Your task to perform on an android device: Show the shopping cart on bestbuy.com. Add sony triple a to the cart on bestbuy.com, then select checkout. Image 0: 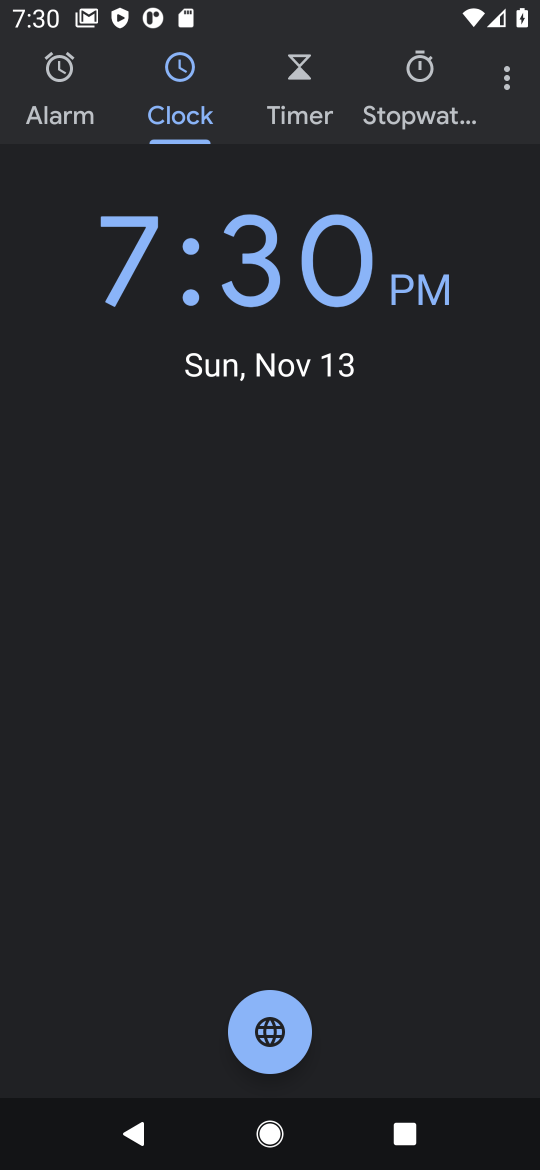
Step 0: press home button
Your task to perform on an android device: Show the shopping cart on bestbuy.com. Add sony triple a to the cart on bestbuy.com, then select checkout. Image 1: 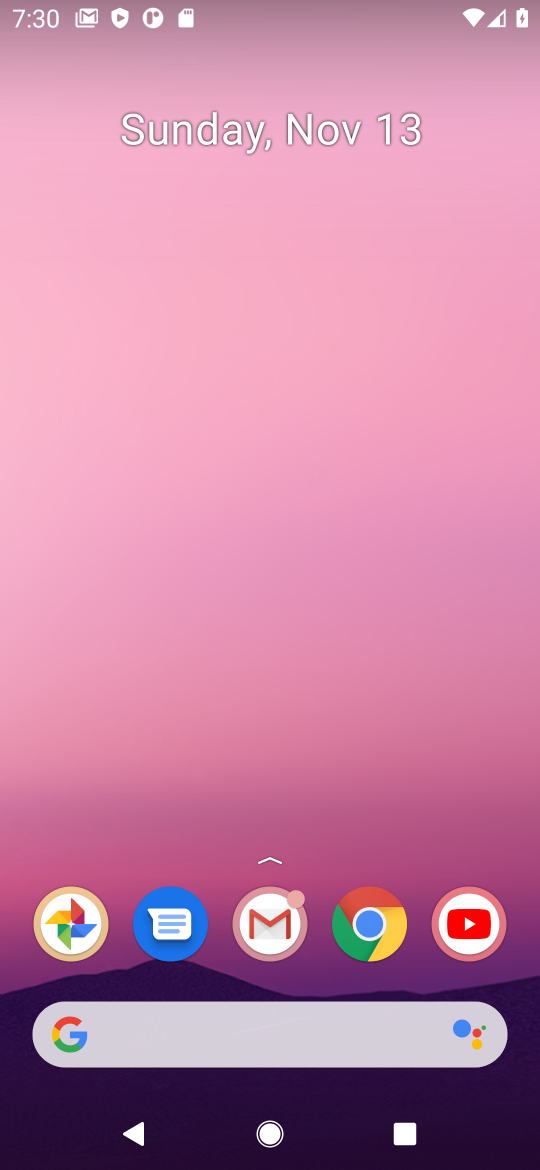
Step 1: click (364, 925)
Your task to perform on an android device: Show the shopping cart on bestbuy.com. Add sony triple a to the cart on bestbuy.com, then select checkout. Image 2: 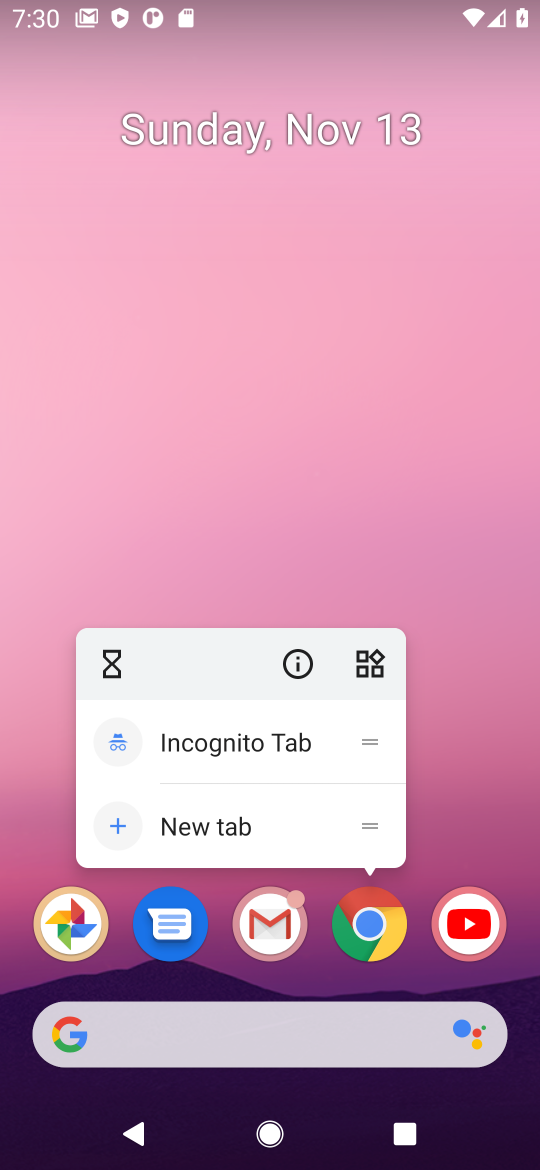
Step 2: click (379, 914)
Your task to perform on an android device: Show the shopping cart on bestbuy.com. Add sony triple a to the cart on bestbuy.com, then select checkout. Image 3: 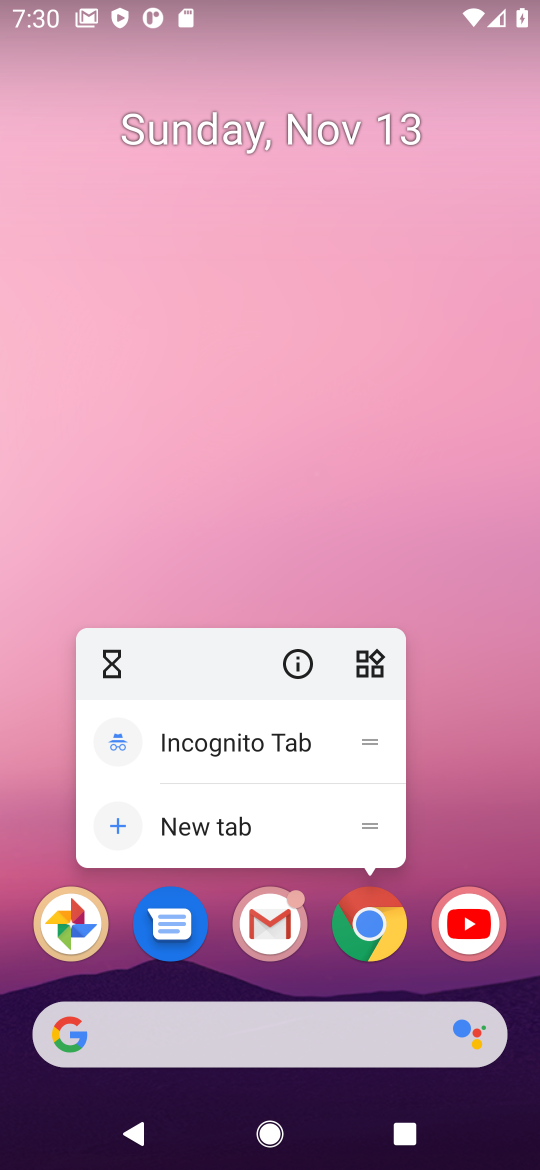
Step 3: click (379, 920)
Your task to perform on an android device: Show the shopping cart on bestbuy.com. Add sony triple a to the cart on bestbuy.com, then select checkout. Image 4: 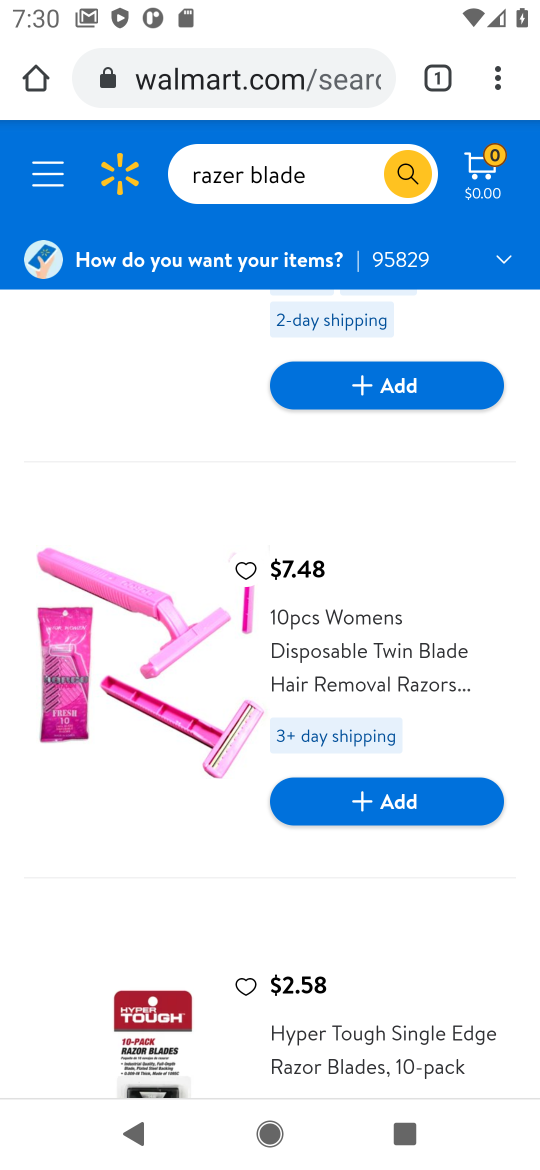
Step 4: click (293, 76)
Your task to perform on an android device: Show the shopping cart on bestbuy.com. Add sony triple a to the cart on bestbuy.com, then select checkout. Image 5: 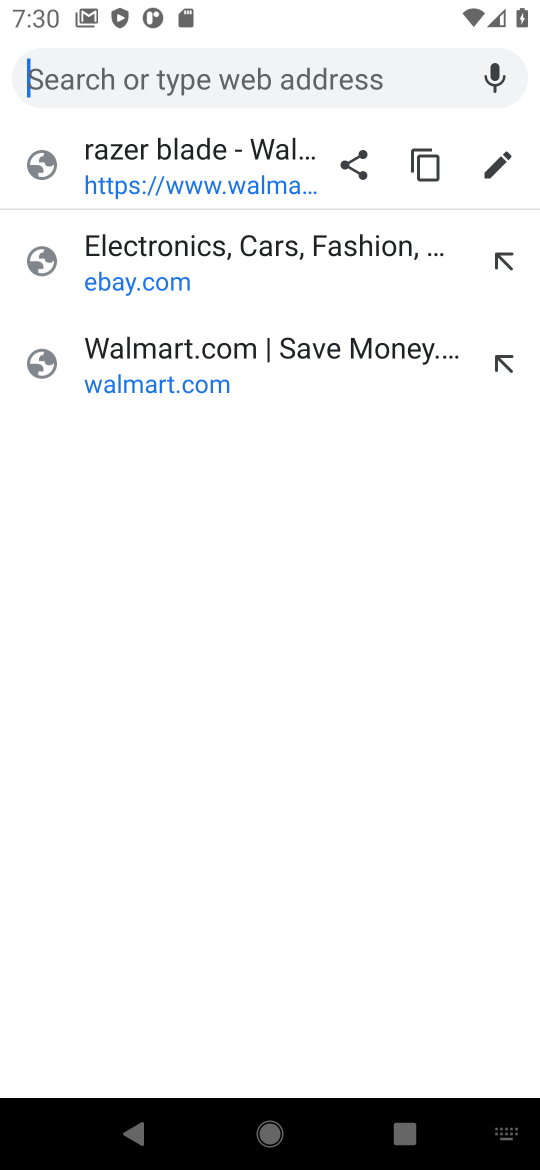
Step 5: type " bestbuy.com"
Your task to perform on an android device: Show the shopping cart on bestbuy.com. Add sony triple a to the cart on bestbuy.com, then select checkout. Image 6: 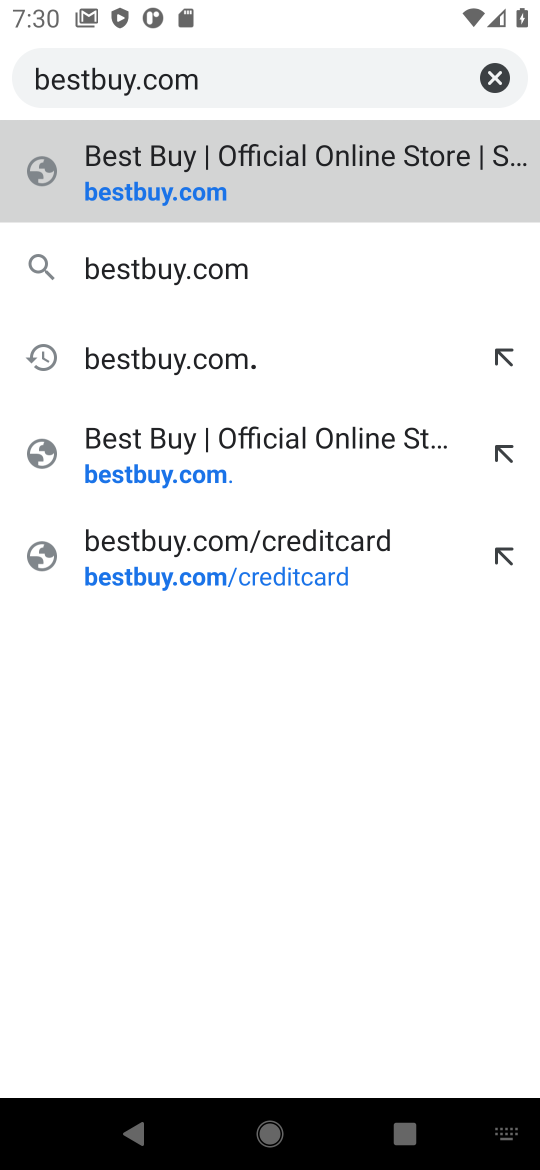
Step 6: press enter
Your task to perform on an android device: Show the shopping cart on bestbuy.com. Add sony triple a to the cart on bestbuy.com, then select checkout. Image 7: 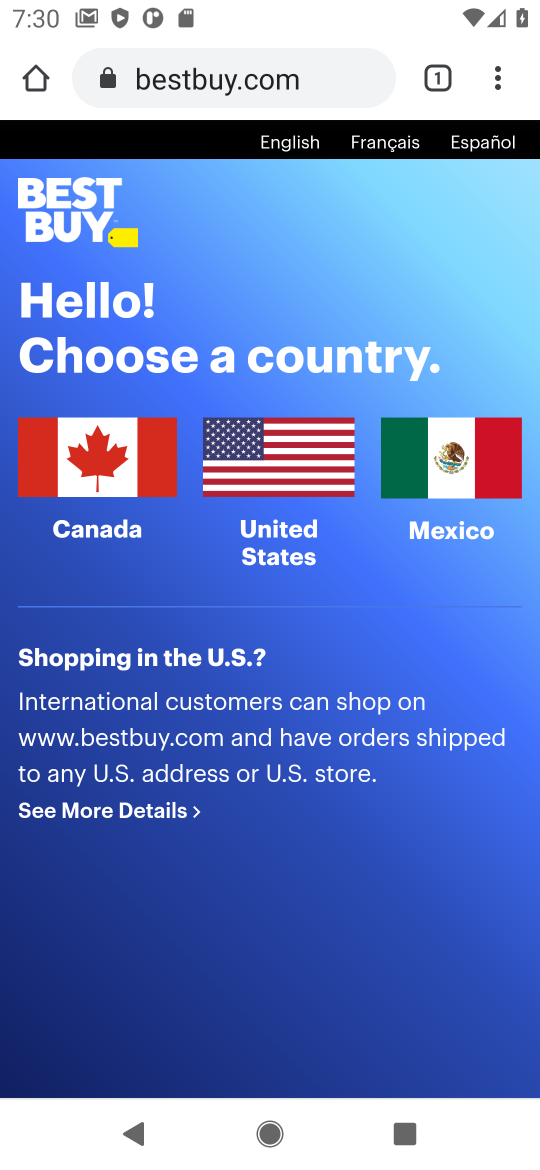
Step 7: click (107, 462)
Your task to perform on an android device: Show the shopping cart on bestbuy.com. Add sony triple a to the cart on bestbuy.com, then select checkout. Image 8: 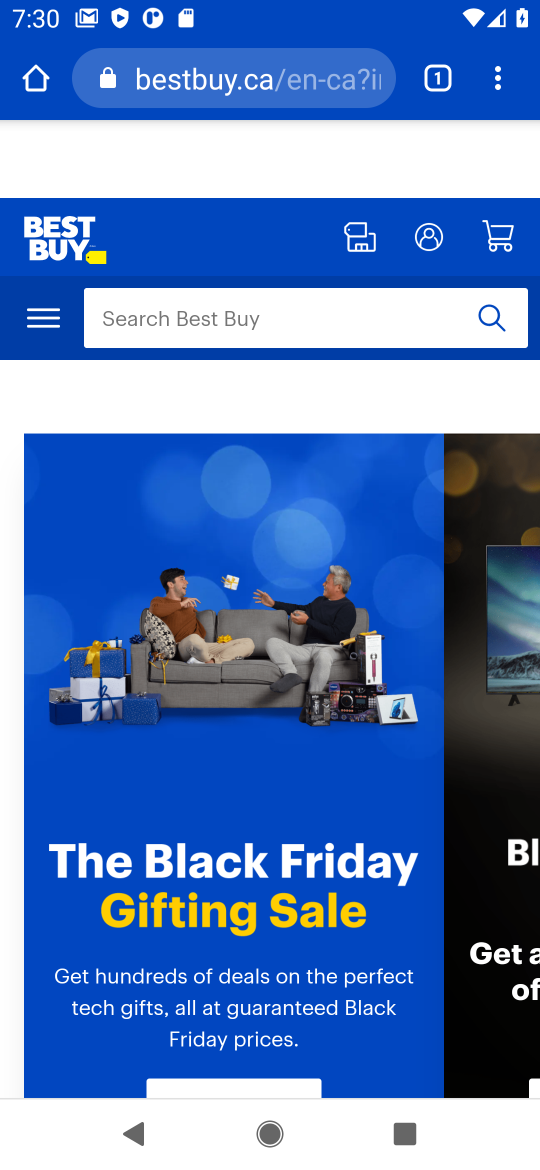
Step 8: click (204, 320)
Your task to perform on an android device: Show the shopping cart on bestbuy.com. Add sony triple a to the cart on bestbuy.com, then select checkout. Image 9: 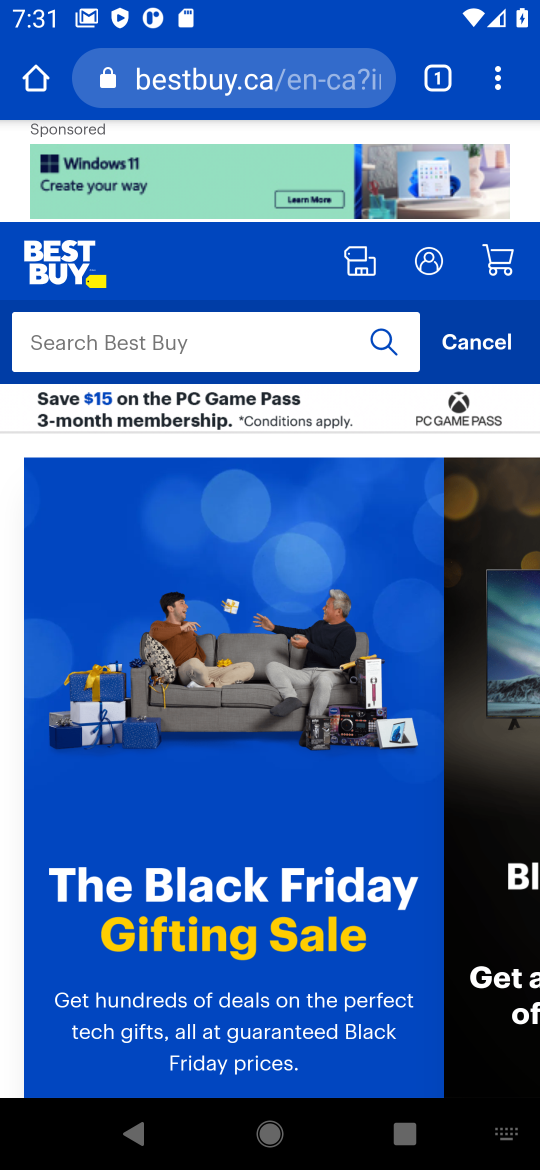
Step 9: type "sony triple a"
Your task to perform on an android device: Show the shopping cart on bestbuy.com. Add sony triple a to the cart on bestbuy.com, then select checkout. Image 10: 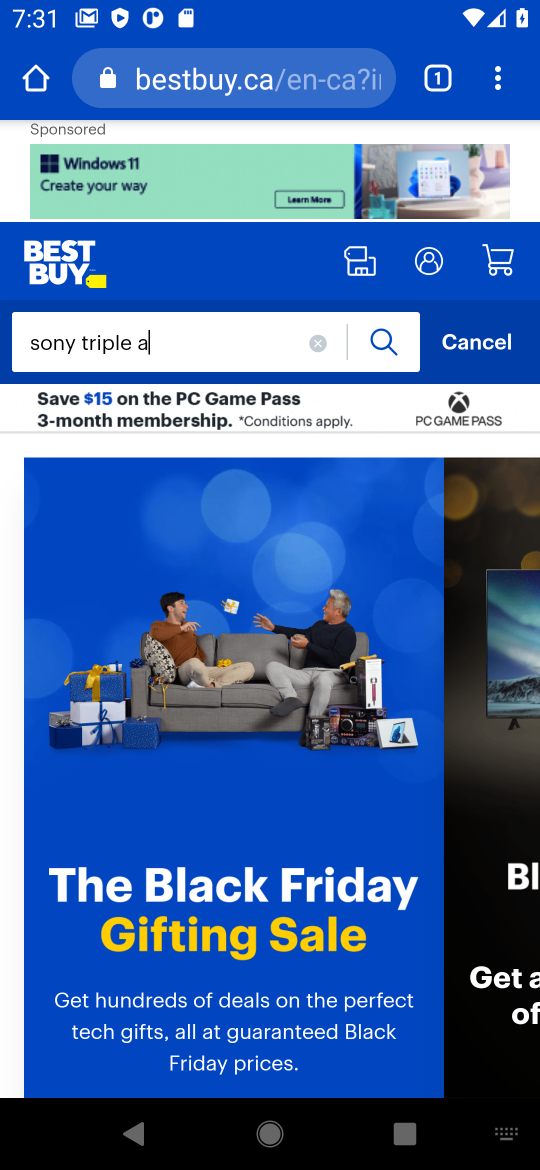
Step 10: press enter
Your task to perform on an android device: Show the shopping cart on bestbuy.com. Add sony triple a to the cart on bestbuy.com, then select checkout. Image 11: 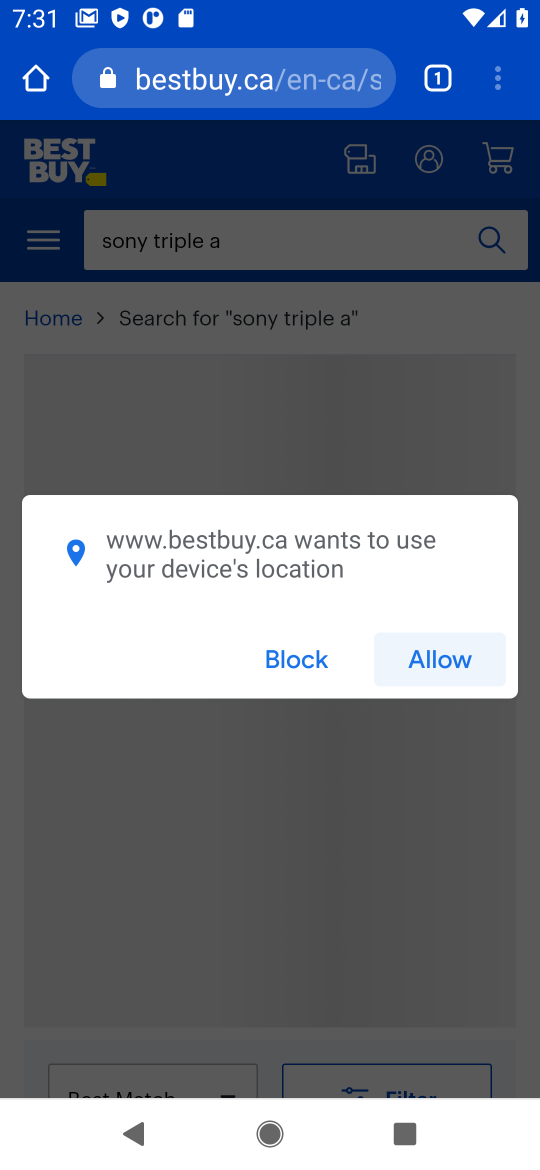
Step 11: click (435, 662)
Your task to perform on an android device: Show the shopping cart on bestbuy.com. Add sony triple a to the cart on bestbuy.com, then select checkout. Image 12: 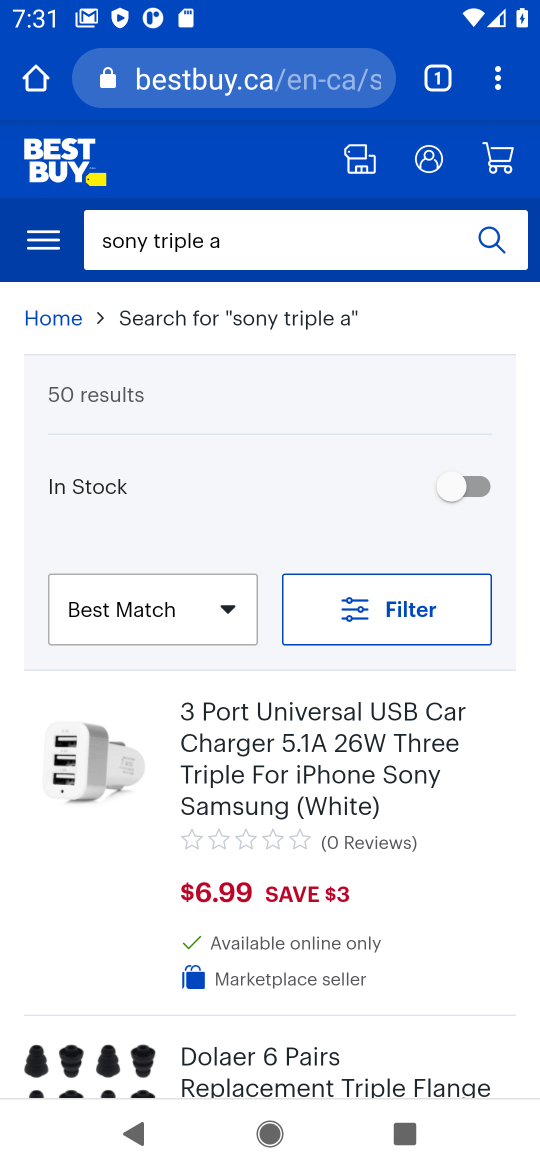
Step 12: task complete